Your task to perform on an android device: turn off location history Image 0: 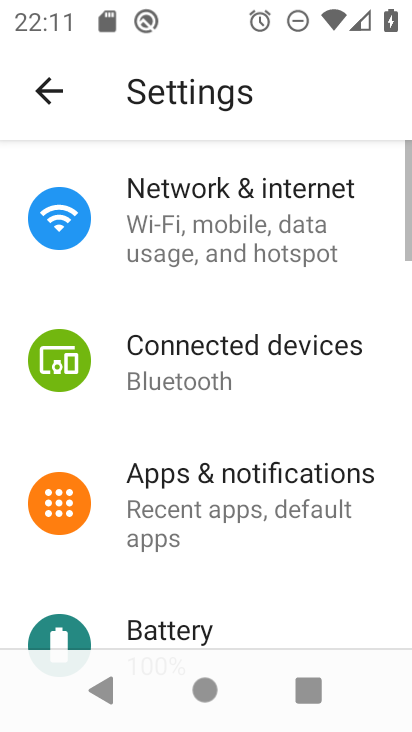
Step 0: press home button
Your task to perform on an android device: turn off location history Image 1: 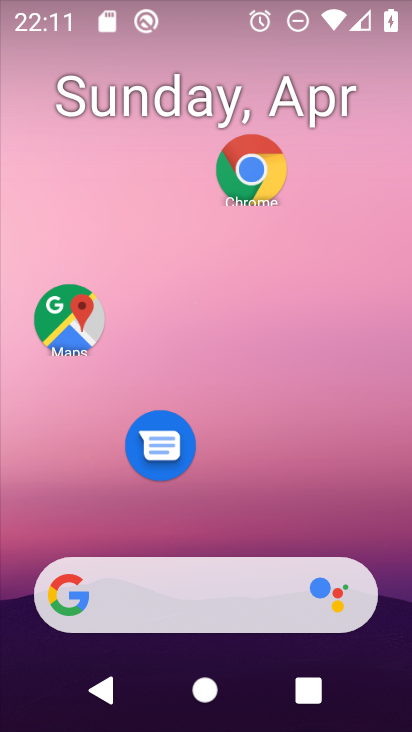
Step 1: drag from (286, 407) to (303, 86)
Your task to perform on an android device: turn off location history Image 2: 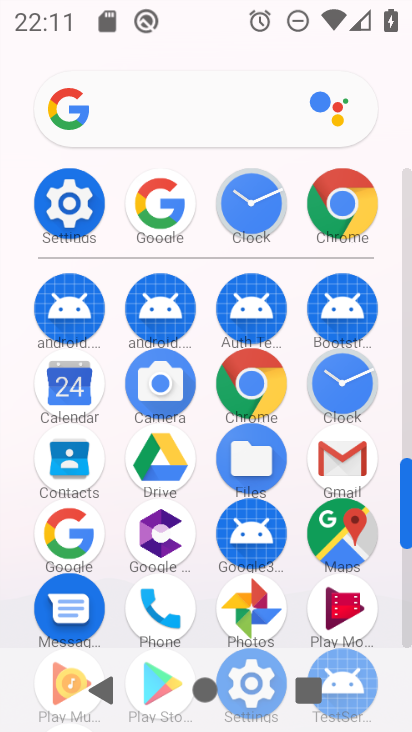
Step 2: click (73, 202)
Your task to perform on an android device: turn off location history Image 3: 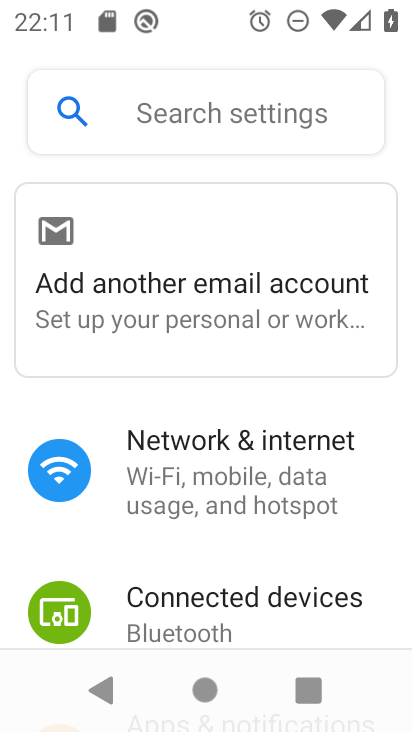
Step 3: drag from (309, 559) to (306, 78)
Your task to perform on an android device: turn off location history Image 4: 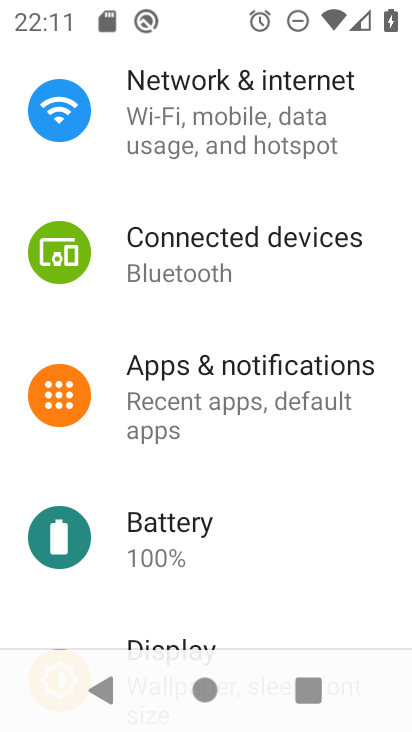
Step 4: drag from (275, 483) to (268, 45)
Your task to perform on an android device: turn off location history Image 5: 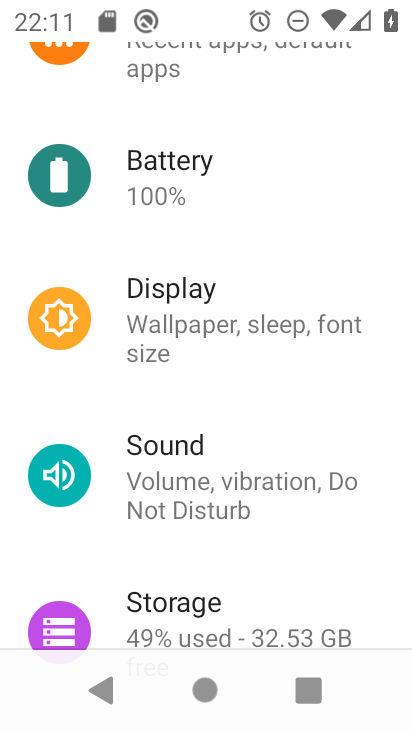
Step 5: drag from (268, 552) to (250, 148)
Your task to perform on an android device: turn off location history Image 6: 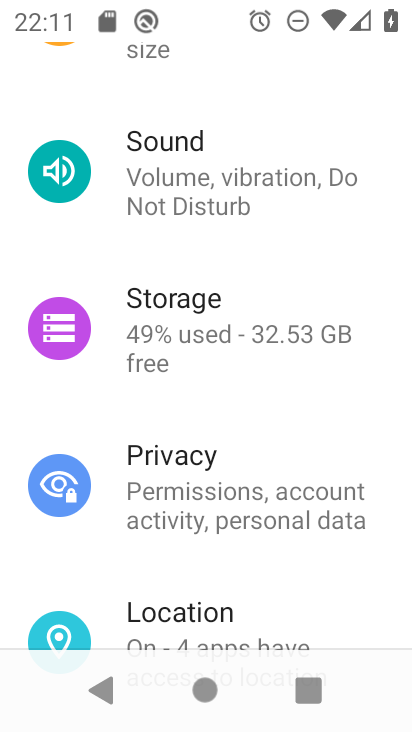
Step 6: click (210, 627)
Your task to perform on an android device: turn off location history Image 7: 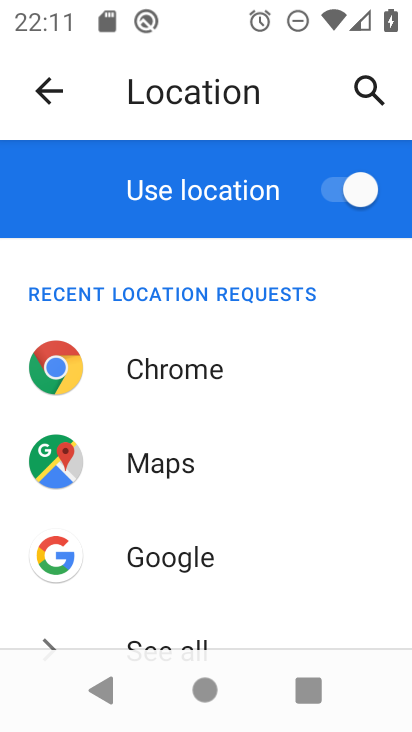
Step 7: drag from (271, 525) to (286, 94)
Your task to perform on an android device: turn off location history Image 8: 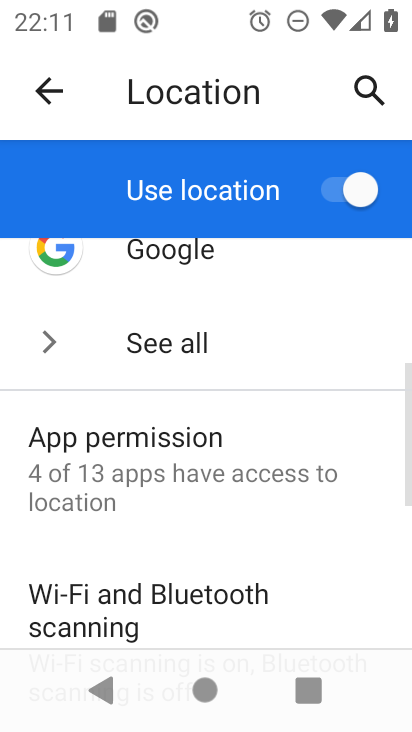
Step 8: drag from (232, 569) to (229, 305)
Your task to perform on an android device: turn off location history Image 9: 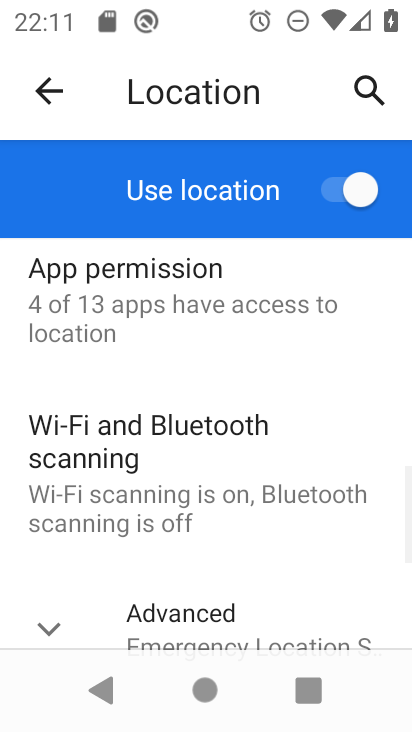
Step 9: drag from (269, 568) to (245, 391)
Your task to perform on an android device: turn off location history Image 10: 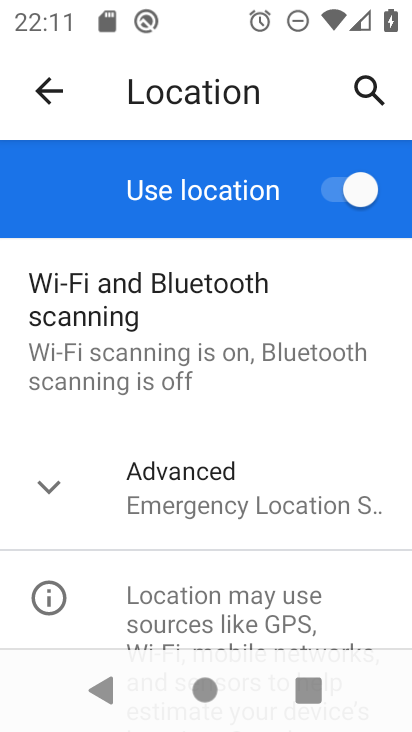
Step 10: click (185, 498)
Your task to perform on an android device: turn off location history Image 11: 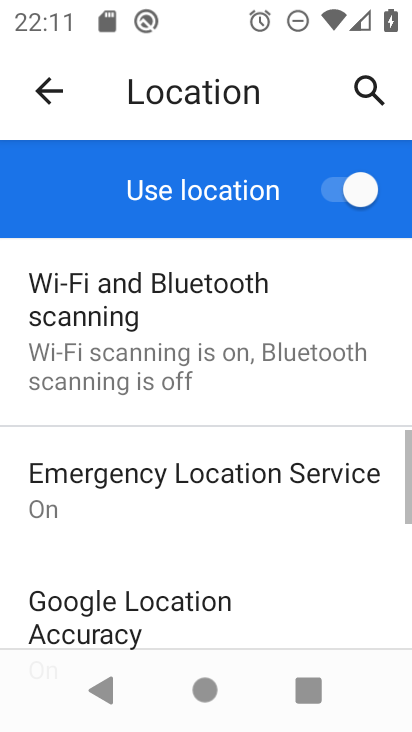
Step 11: drag from (226, 520) to (241, 265)
Your task to perform on an android device: turn off location history Image 12: 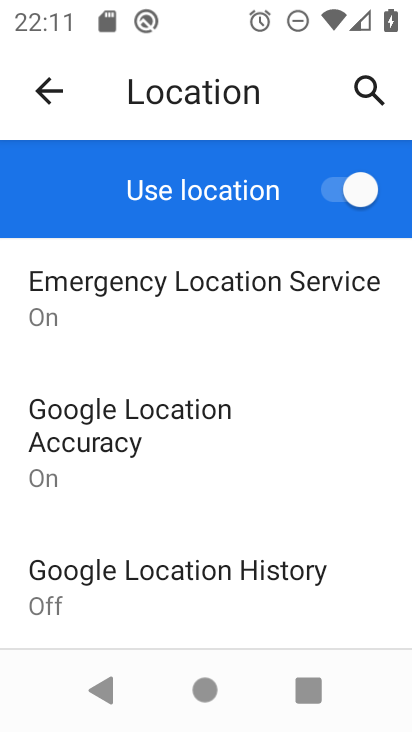
Step 12: click (203, 589)
Your task to perform on an android device: turn off location history Image 13: 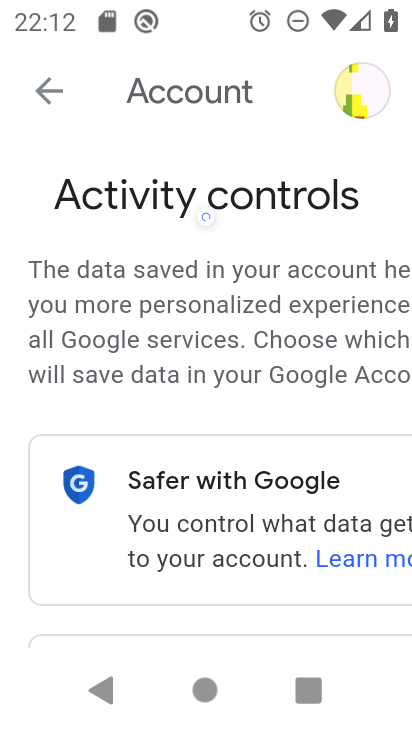
Step 13: drag from (236, 545) to (289, 78)
Your task to perform on an android device: turn off location history Image 14: 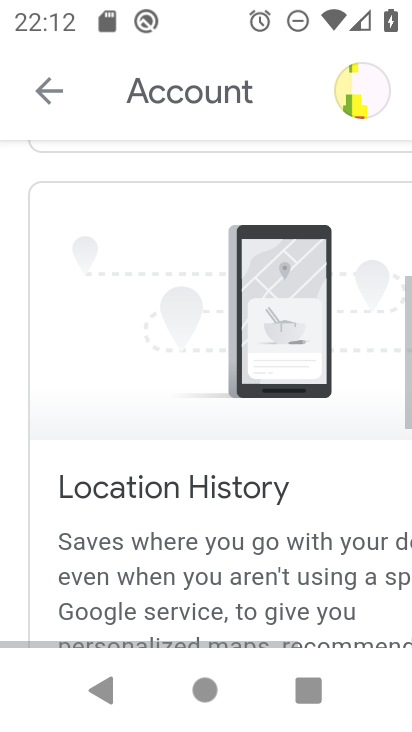
Step 14: drag from (270, 550) to (282, 132)
Your task to perform on an android device: turn off location history Image 15: 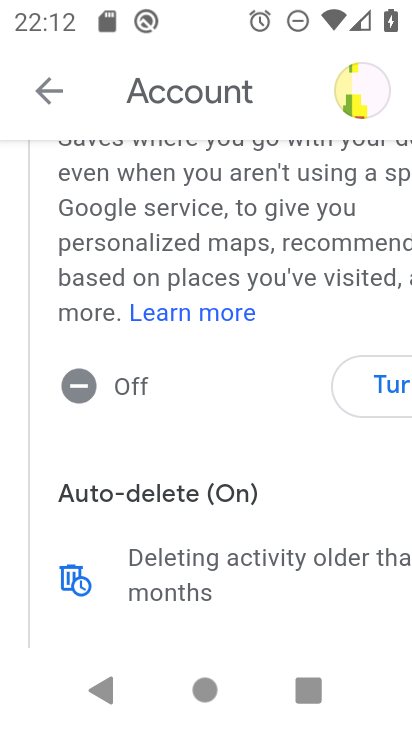
Step 15: click (393, 386)
Your task to perform on an android device: turn off location history Image 16: 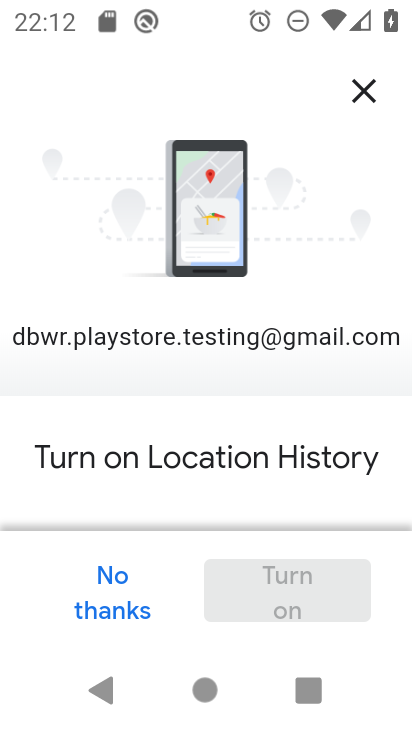
Step 16: task complete